Your task to perform on an android device: Open Chrome and go to settings Image 0: 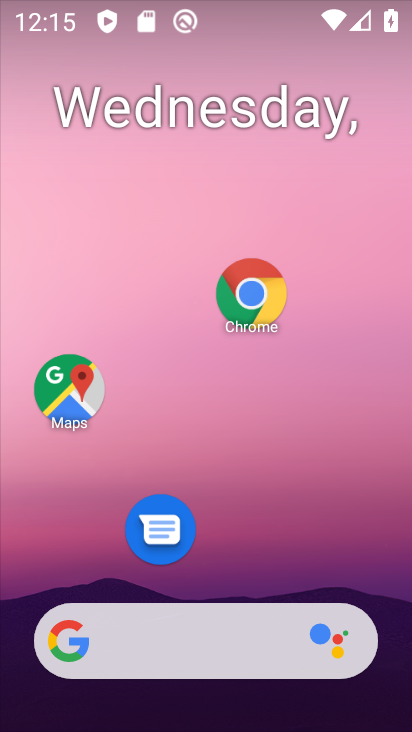
Step 0: click (251, 298)
Your task to perform on an android device: Open Chrome and go to settings Image 1: 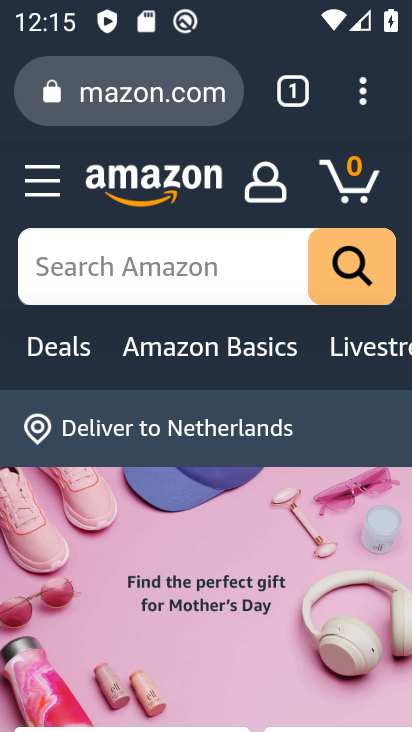
Step 1: click (377, 94)
Your task to perform on an android device: Open Chrome and go to settings Image 2: 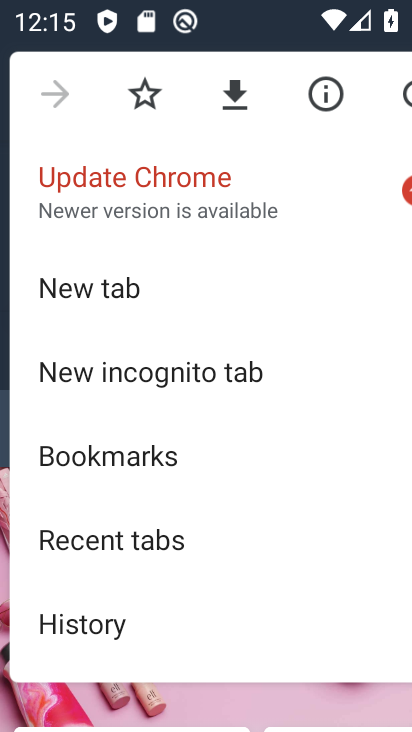
Step 2: drag from (172, 607) to (214, 340)
Your task to perform on an android device: Open Chrome and go to settings Image 3: 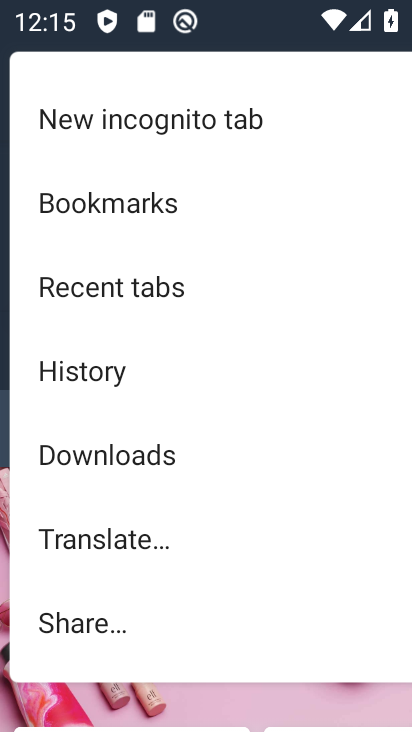
Step 3: drag from (211, 572) to (236, 433)
Your task to perform on an android device: Open Chrome and go to settings Image 4: 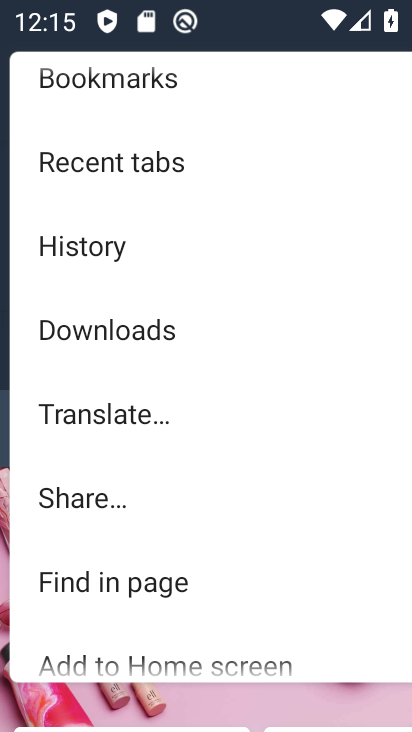
Step 4: drag from (214, 606) to (230, 365)
Your task to perform on an android device: Open Chrome and go to settings Image 5: 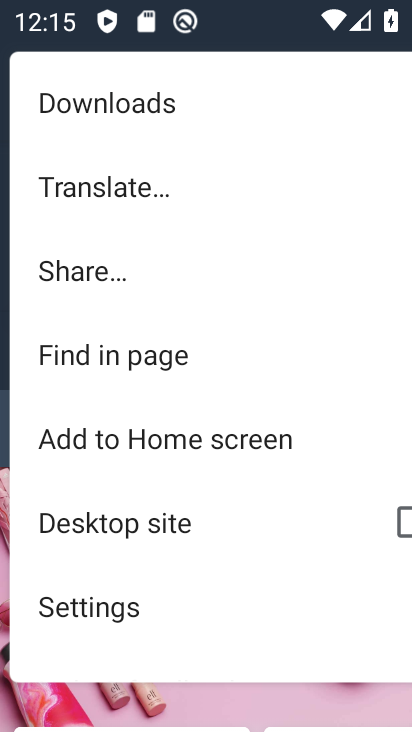
Step 5: click (197, 612)
Your task to perform on an android device: Open Chrome and go to settings Image 6: 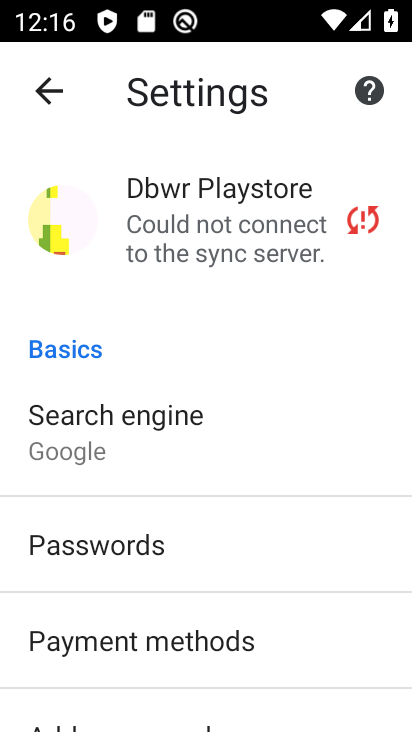
Step 6: task complete